Your task to perform on an android device: Go to eBay Image 0: 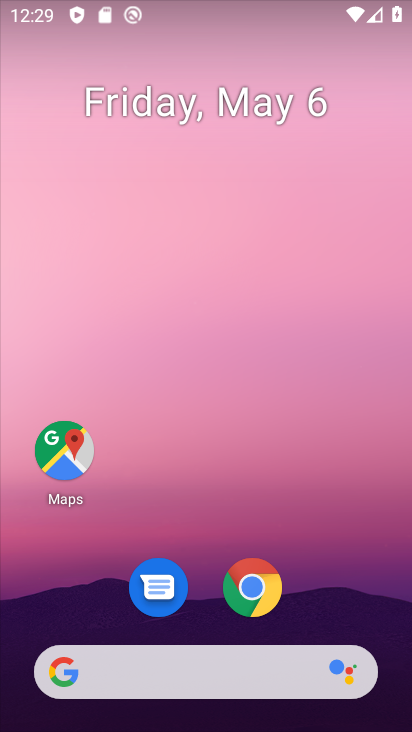
Step 0: click (251, 580)
Your task to perform on an android device: Go to eBay Image 1: 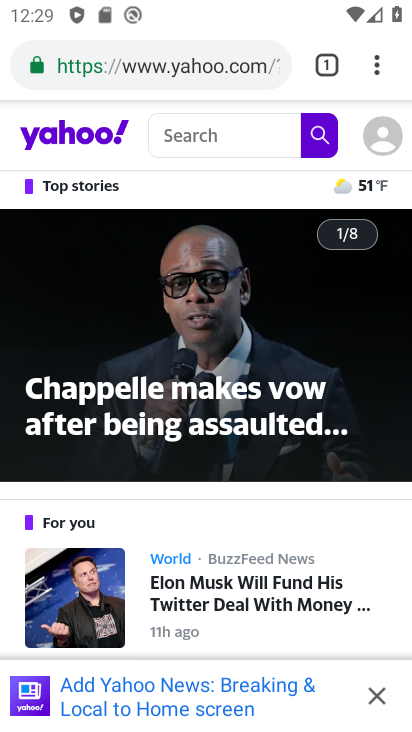
Step 1: click (148, 56)
Your task to perform on an android device: Go to eBay Image 2: 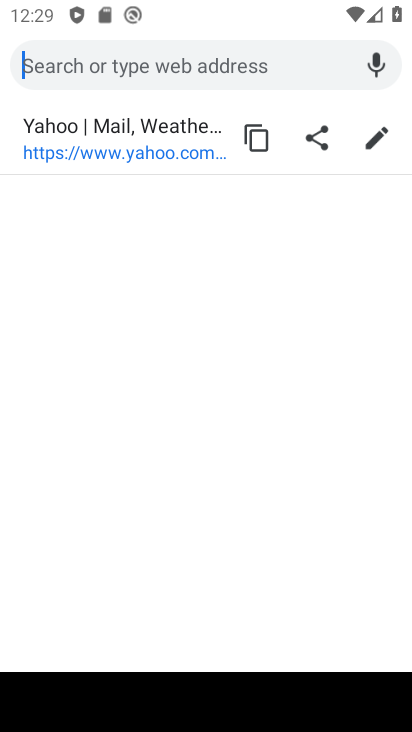
Step 2: type "eBay"
Your task to perform on an android device: Go to eBay Image 3: 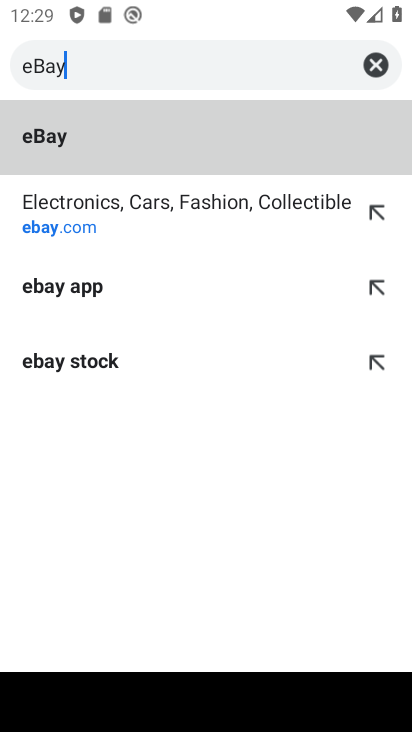
Step 3: type ""
Your task to perform on an android device: Go to eBay Image 4: 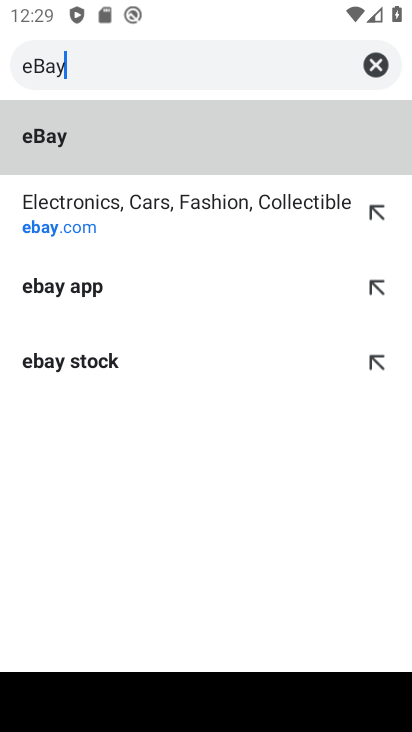
Step 4: click (58, 138)
Your task to perform on an android device: Go to eBay Image 5: 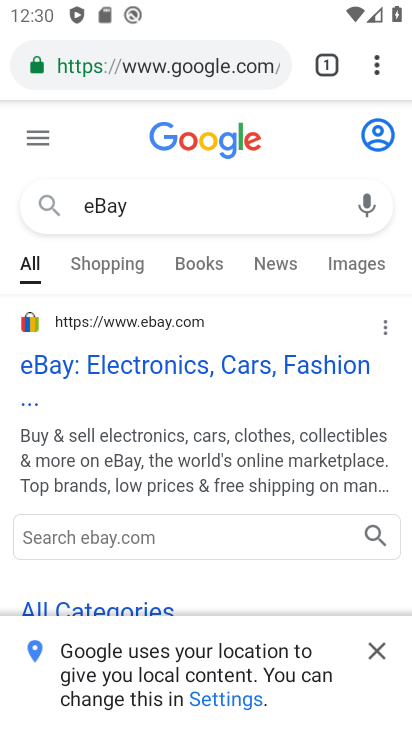
Step 5: task complete